Your task to perform on an android device: change notification settings in the gmail app Image 0: 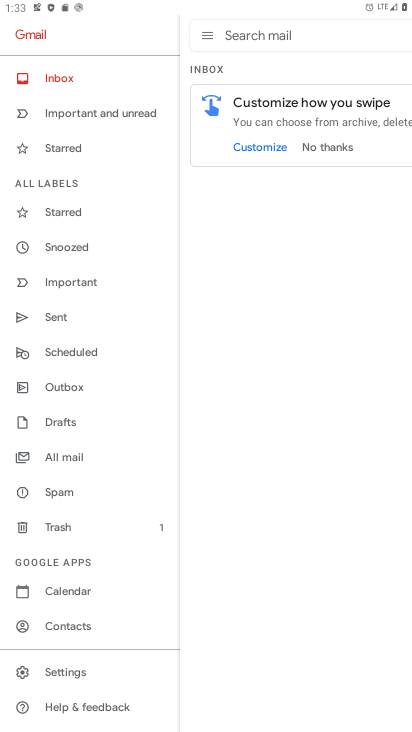
Step 0: press home button
Your task to perform on an android device: change notification settings in the gmail app Image 1: 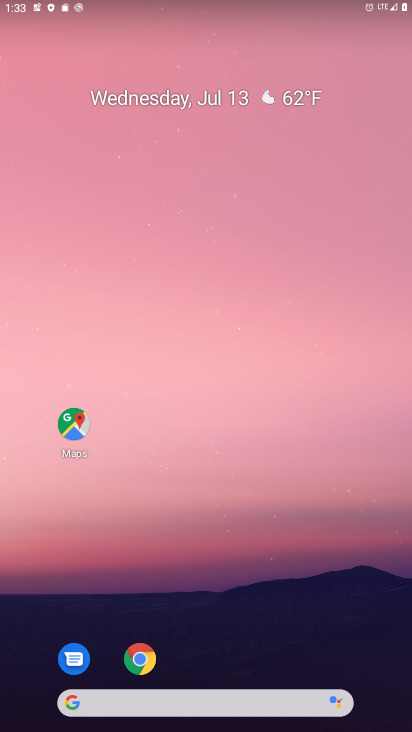
Step 1: drag from (222, 694) to (218, 105)
Your task to perform on an android device: change notification settings in the gmail app Image 2: 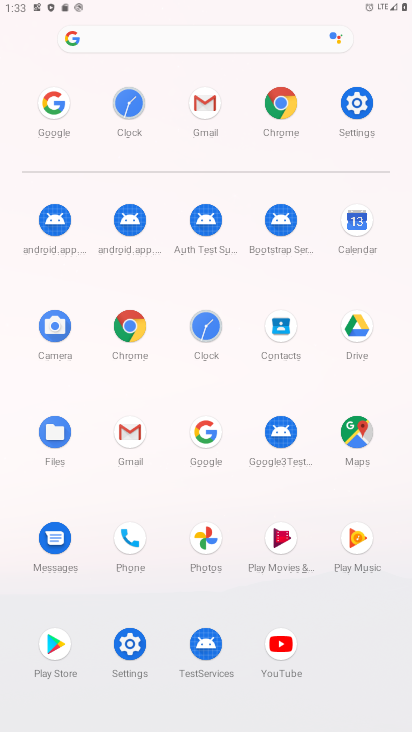
Step 2: click (128, 426)
Your task to perform on an android device: change notification settings in the gmail app Image 3: 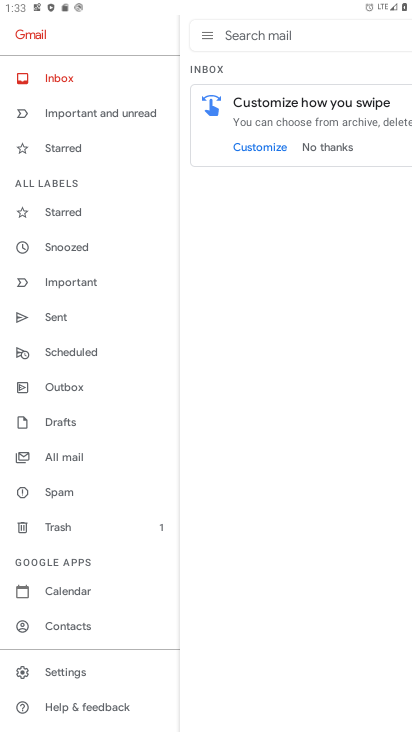
Step 3: click (62, 671)
Your task to perform on an android device: change notification settings in the gmail app Image 4: 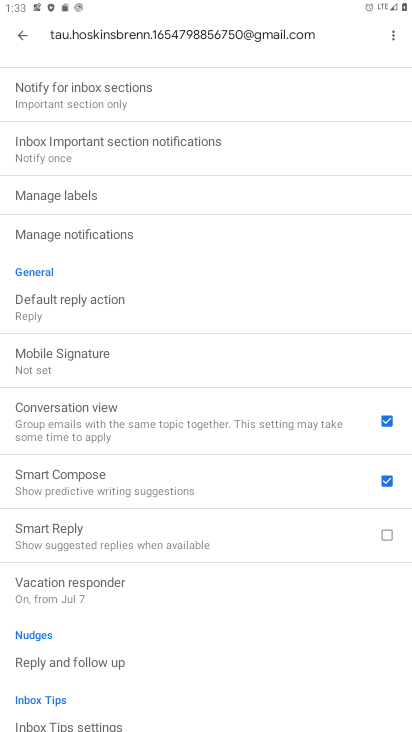
Step 4: click (137, 101)
Your task to perform on an android device: change notification settings in the gmail app Image 5: 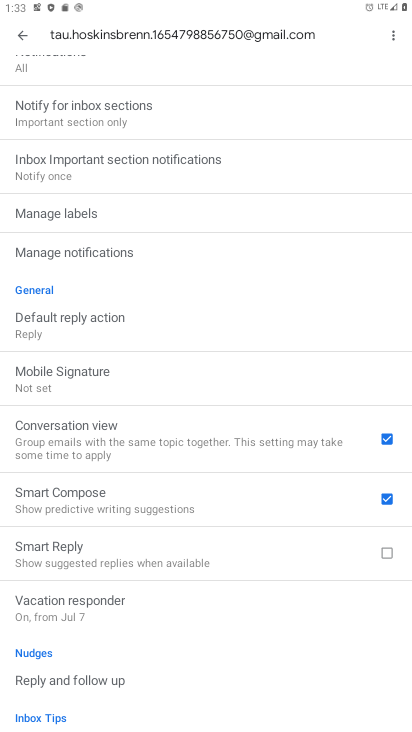
Step 5: click (138, 485)
Your task to perform on an android device: change notification settings in the gmail app Image 6: 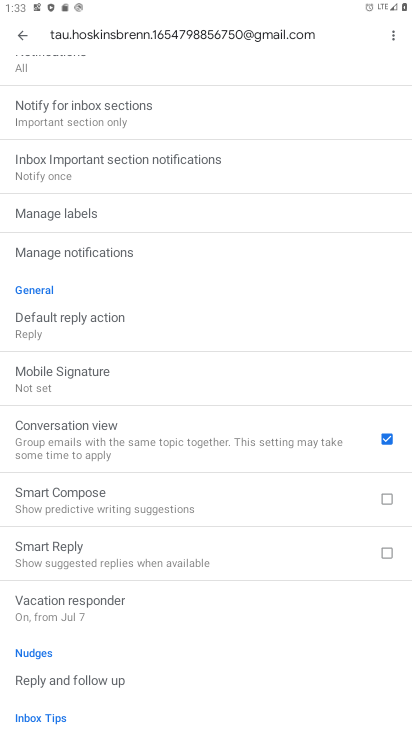
Step 6: drag from (129, 105) to (134, 558)
Your task to perform on an android device: change notification settings in the gmail app Image 7: 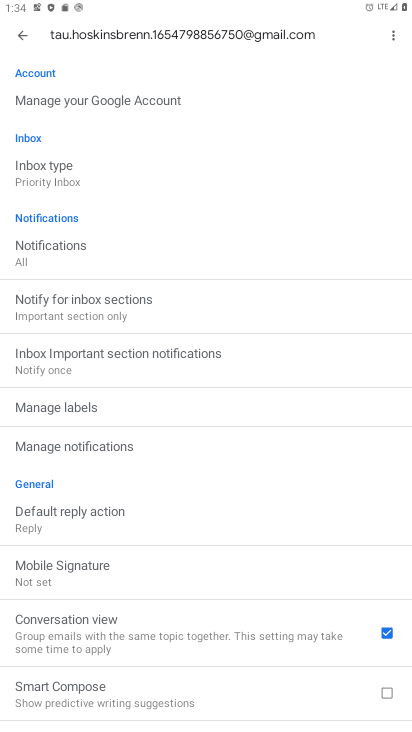
Step 7: click (56, 242)
Your task to perform on an android device: change notification settings in the gmail app Image 8: 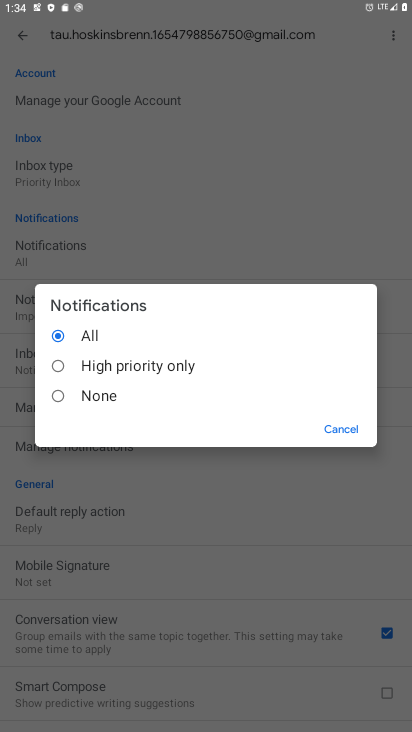
Step 8: click (56, 368)
Your task to perform on an android device: change notification settings in the gmail app Image 9: 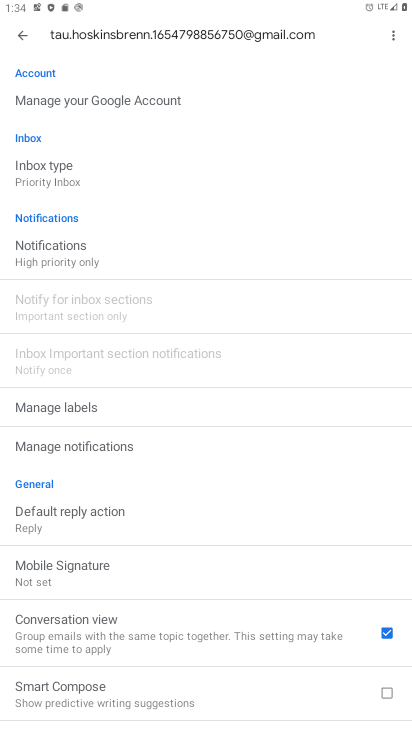
Step 9: task complete